Your task to perform on an android device: change timer sound Image 0: 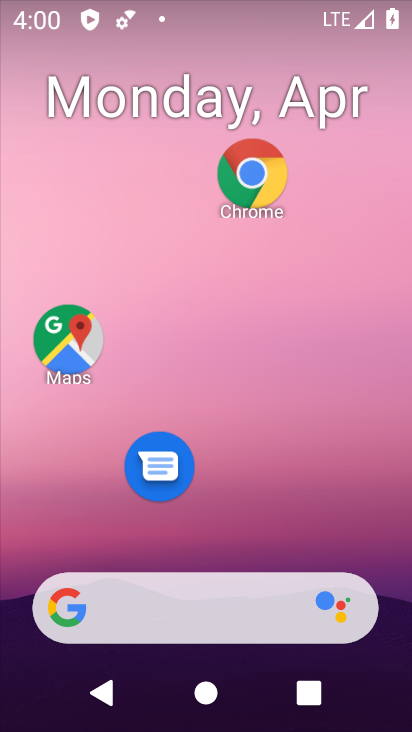
Step 0: drag from (375, 497) to (316, 58)
Your task to perform on an android device: change timer sound Image 1: 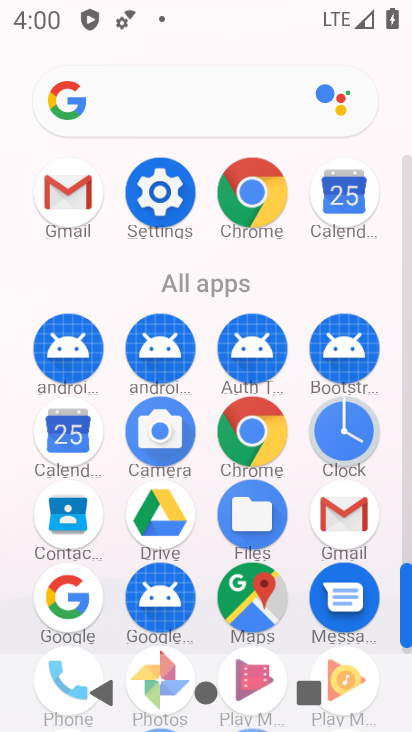
Step 1: click (360, 429)
Your task to perform on an android device: change timer sound Image 2: 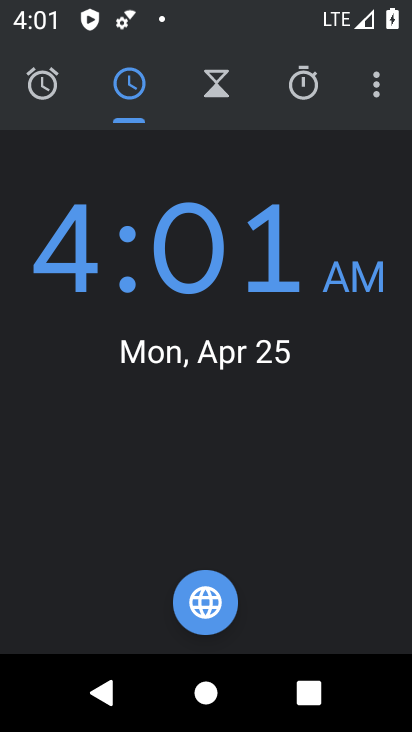
Step 2: click (233, 94)
Your task to perform on an android device: change timer sound Image 3: 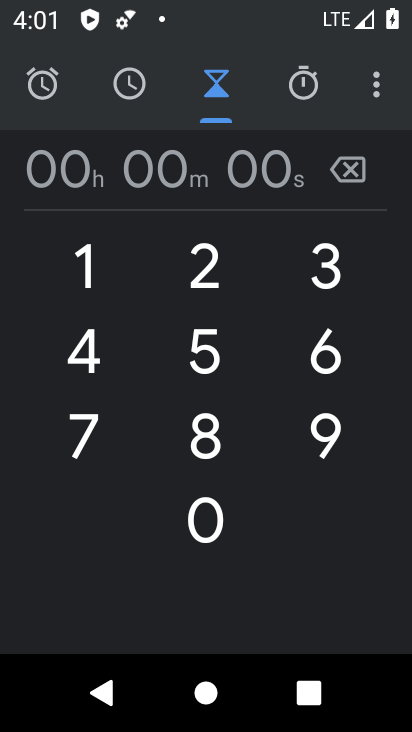
Step 3: click (397, 71)
Your task to perform on an android device: change timer sound Image 4: 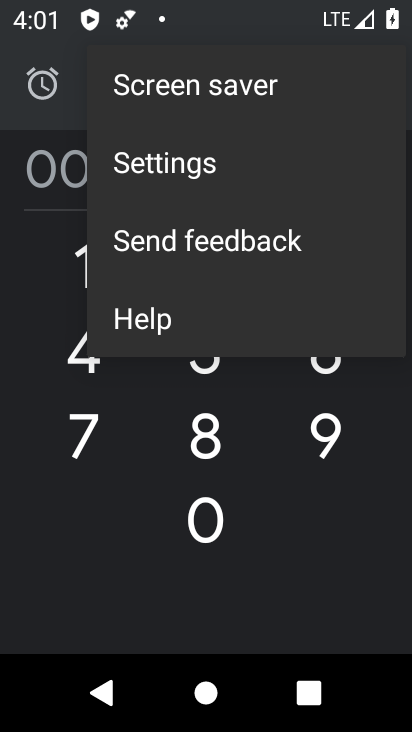
Step 4: click (397, 71)
Your task to perform on an android device: change timer sound Image 5: 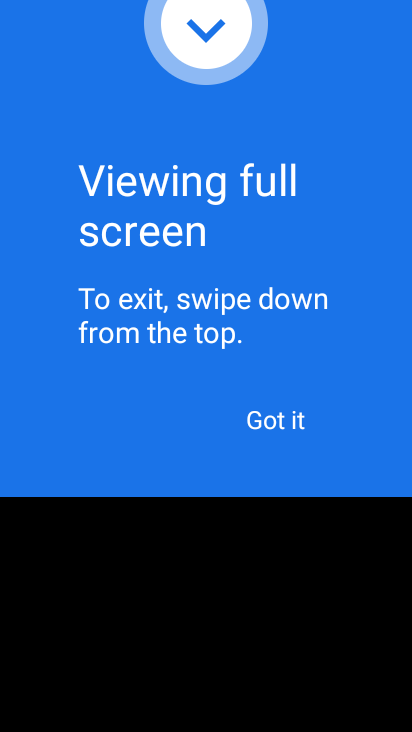
Step 5: click (285, 437)
Your task to perform on an android device: change timer sound Image 6: 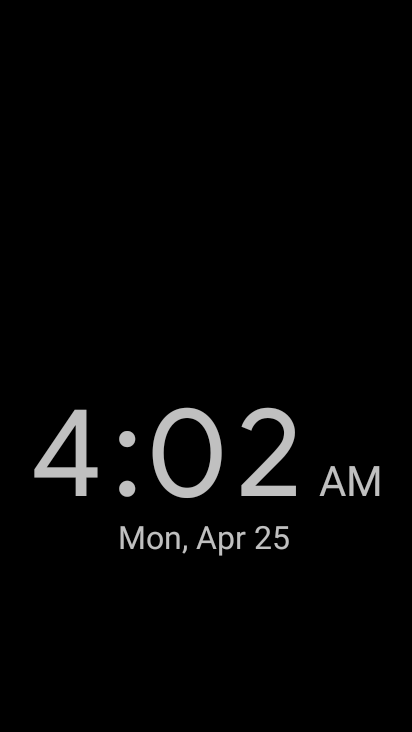
Step 6: click (218, 359)
Your task to perform on an android device: change timer sound Image 7: 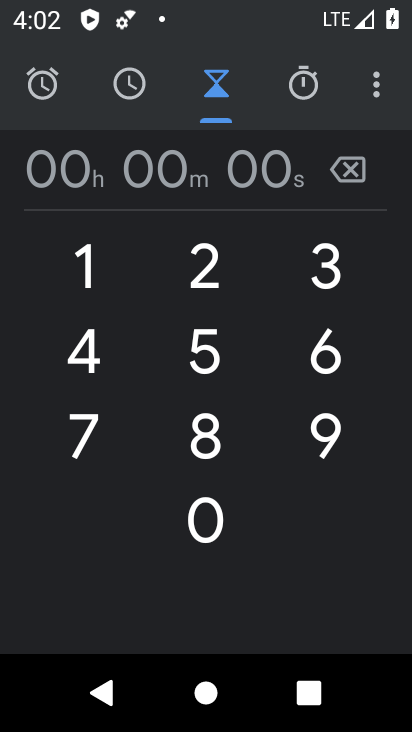
Step 7: click (380, 99)
Your task to perform on an android device: change timer sound Image 8: 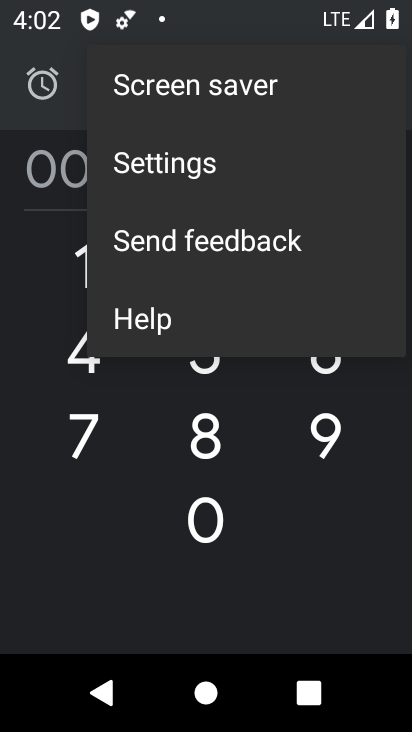
Step 8: click (324, 156)
Your task to perform on an android device: change timer sound Image 9: 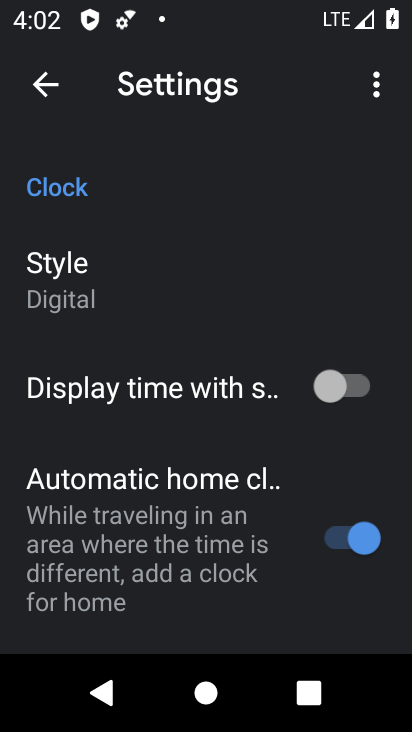
Step 9: drag from (238, 609) to (223, 341)
Your task to perform on an android device: change timer sound Image 10: 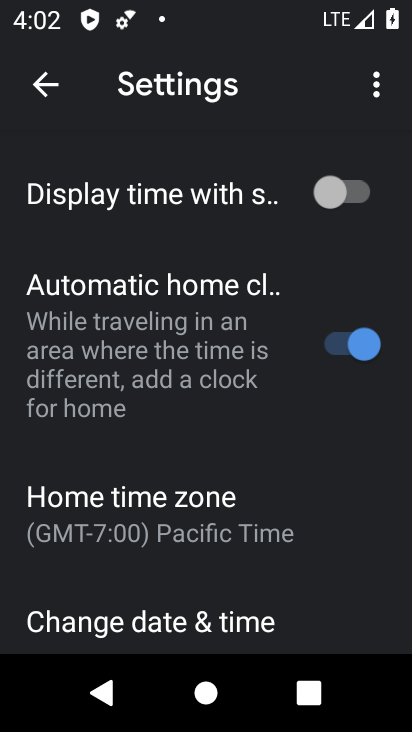
Step 10: drag from (272, 624) to (164, 243)
Your task to perform on an android device: change timer sound Image 11: 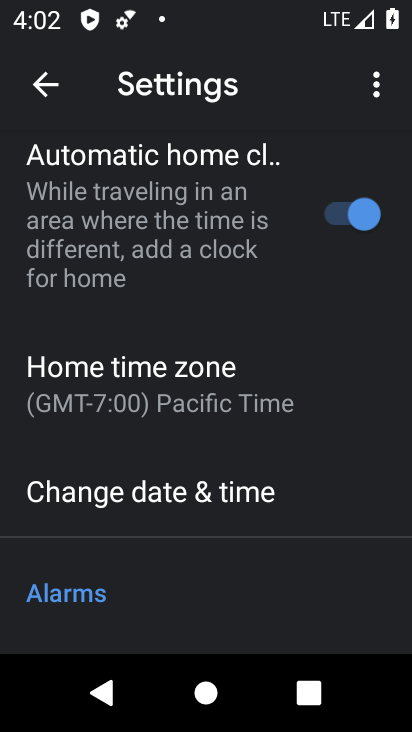
Step 11: drag from (240, 496) to (204, 314)
Your task to perform on an android device: change timer sound Image 12: 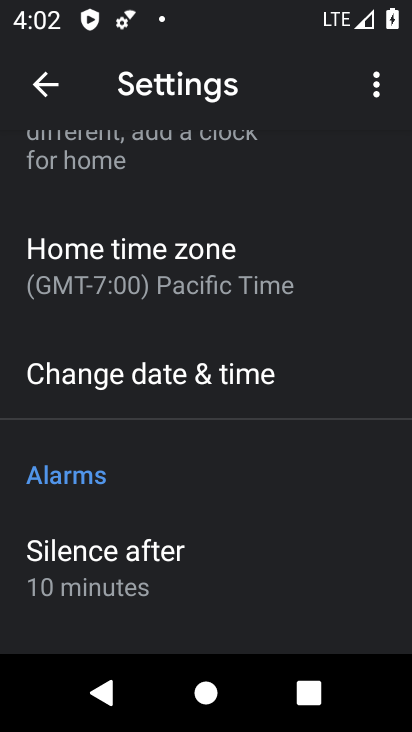
Step 12: drag from (268, 496) to (206, 269)
Your task to perform on an android device: change timer sound Image 13: 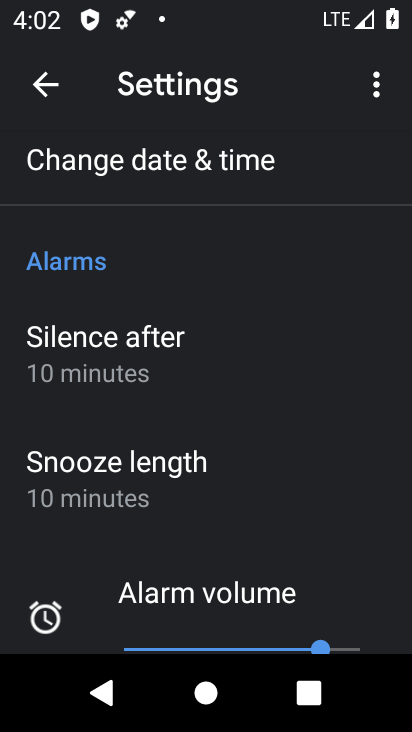
Step 13: drag from (299, 611) to (229, 358)
Your task to perform on an android device: change timer sound Image 14: 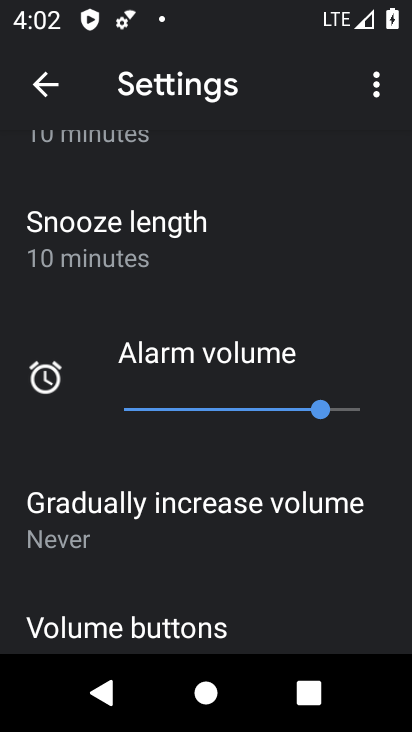
Step 14: drag from (276, 467) to (207, 275)
Your task to perform on an android device: change timer sound Image 15: 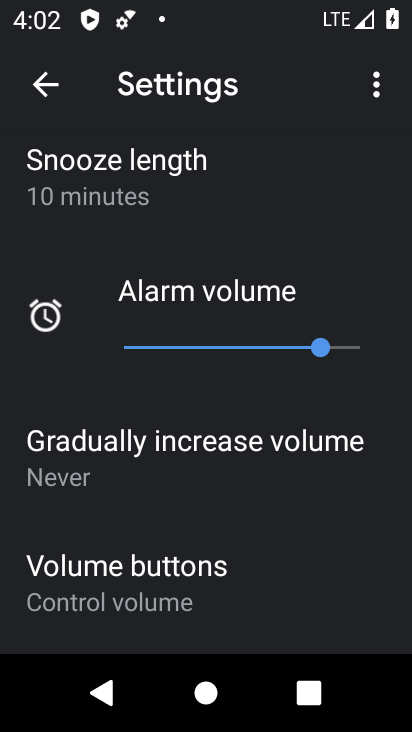
Step 15: drag from (261, 545) to (182, 243)
Your task to perform on an android device: change timer sound Image 16: 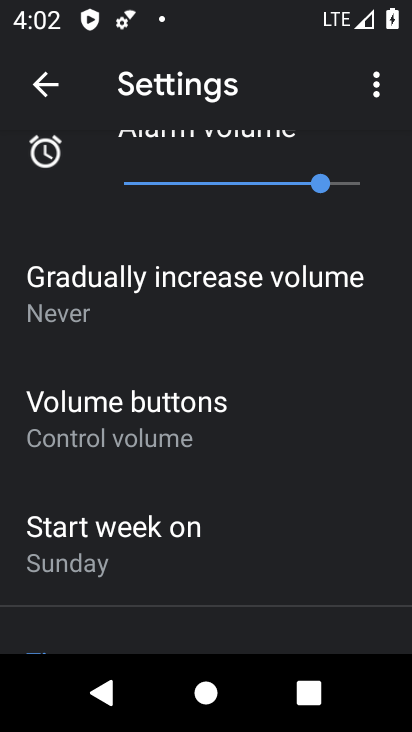
Step 16: drag from (203, 573) to (201, 194)
Your task to perform on an android device: change timer sound Image 17: 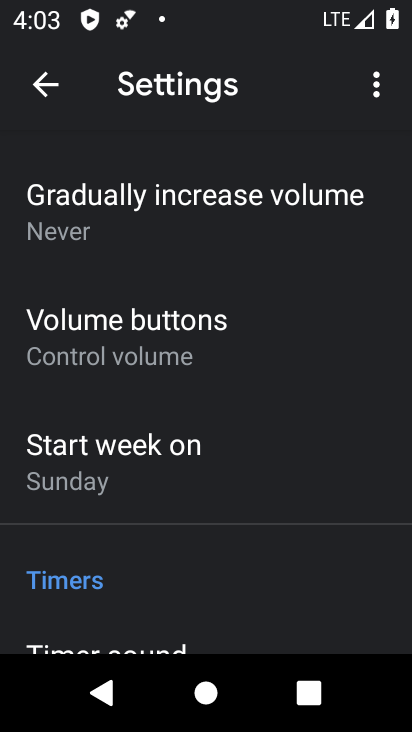
Step 17: drag from (249, 586) to (198, 246)
Your task to perform on an android device: change timer sound Image 18: 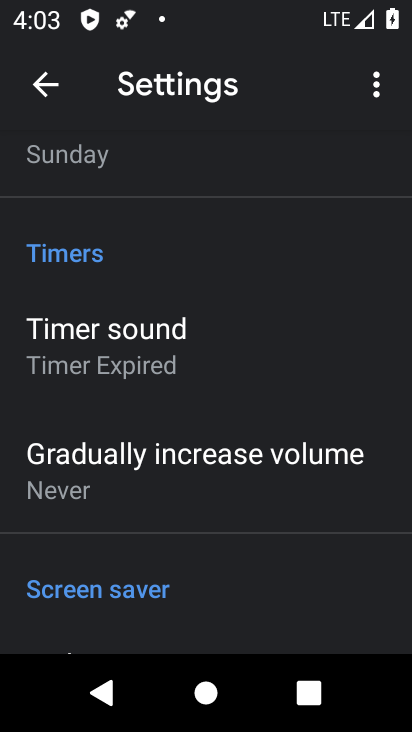
Step 18: click (233, 356)
Your task to perform on an android device: change timer sound Image 19: 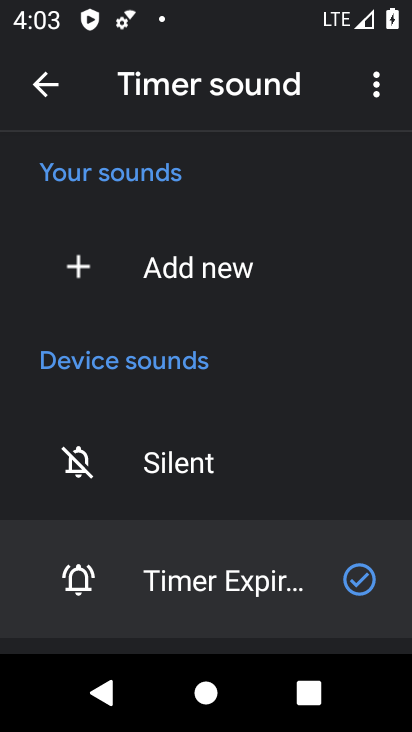
Step 19: drag from (235, 475) to (195, 195)
Your task to perform on an android device: change timer sound Image 20: 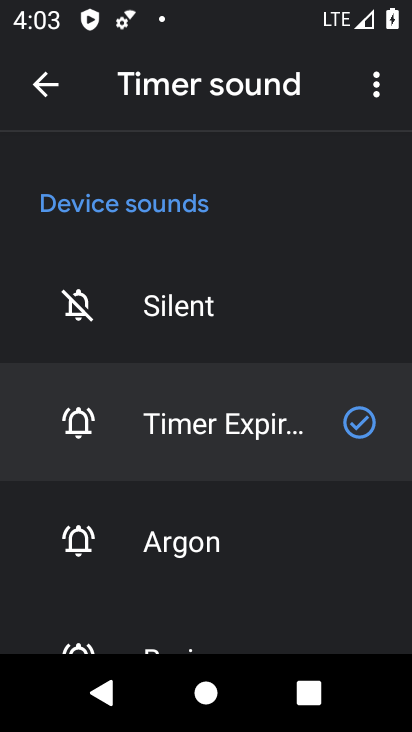
Step 20: click (247, 560)
Your task to perform on an android device: change timer sound Image 21: 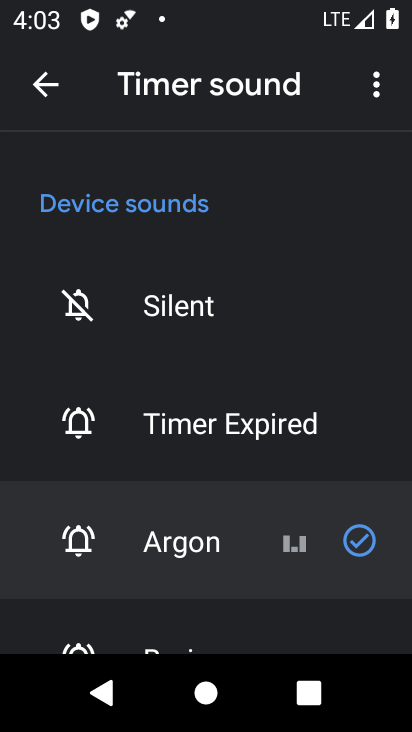
Step 21: task complete